Your task to perform on an android device: move an email to a new category in the gmail app Image 0: 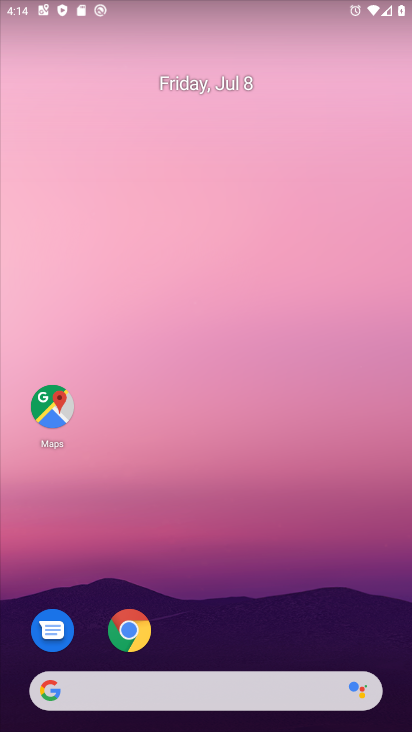
Step 0: drag from (214, 680) to (194, 42)
Your task to perform on an android device: move an email to a new category in the gmail app Image 1: 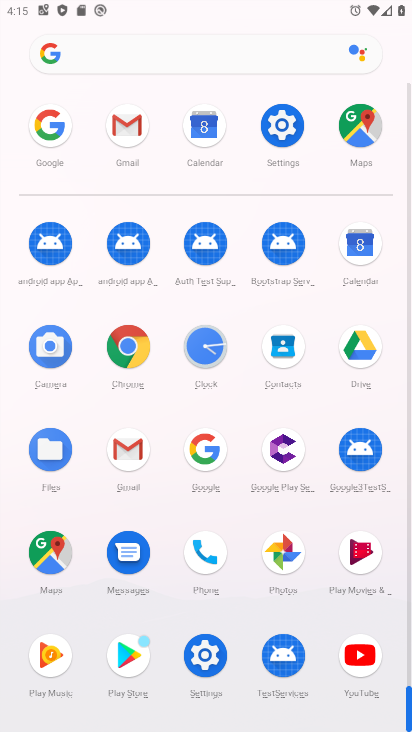
Step 1: click (128, 121)
Your task to perform on an android device: move an email to a new category in the gmail app Image 2: 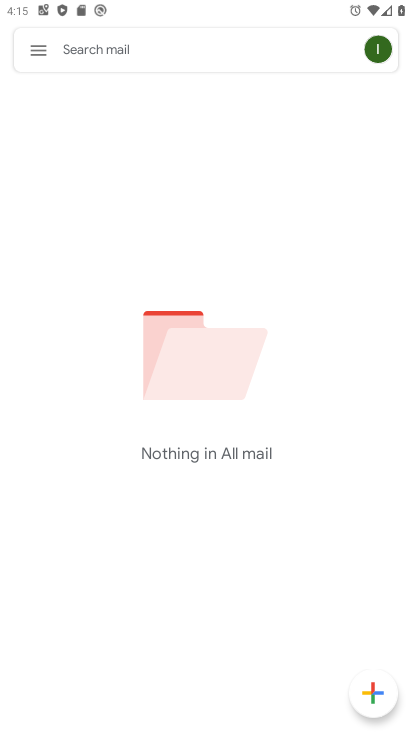
Step 2: click (40, 55)
Your task to perform on an android device: move an email to a new category in the gmail app Image 3: 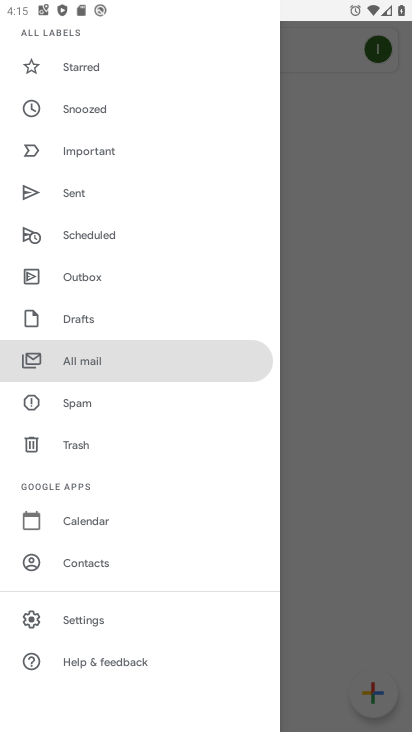
Step 3: drag from (140, 287) to (91, 492)
Your task to perform on an android device: move an email to a new category in the gmail app Image 4: 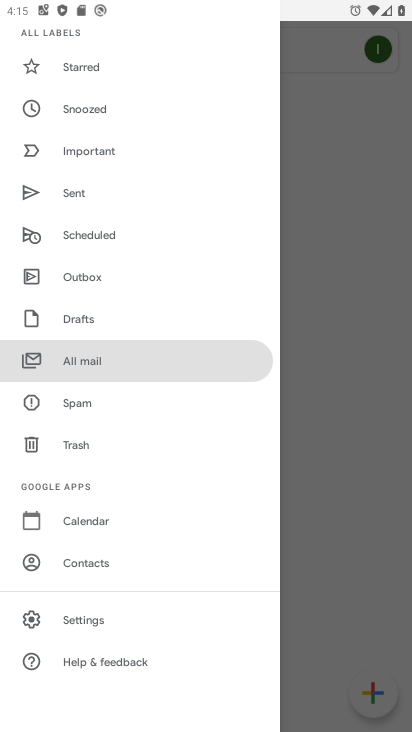
Step 4: drag from (70, 134) to (99, 410)
Your task to perform on an android device: move an email to a new category in the gmail app Image 5: 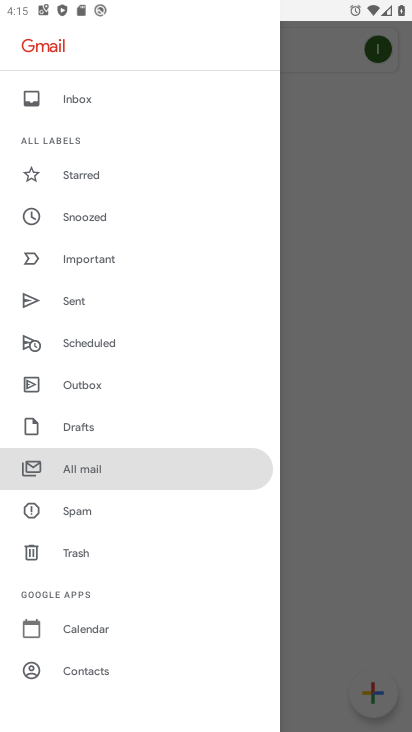
Step 5: click (80, 103)
Your task to perform on an android device: move an email to a new category in the gmail app Image 6: 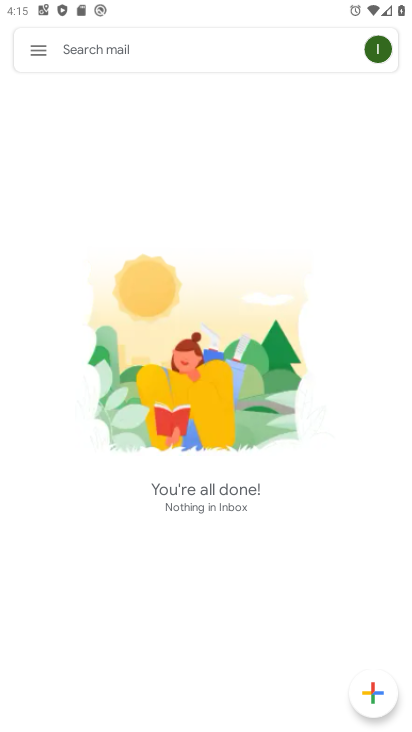
Step 6: task complete